Your task to perform on an android device: turn off smart reply in the gmail app Image 0: 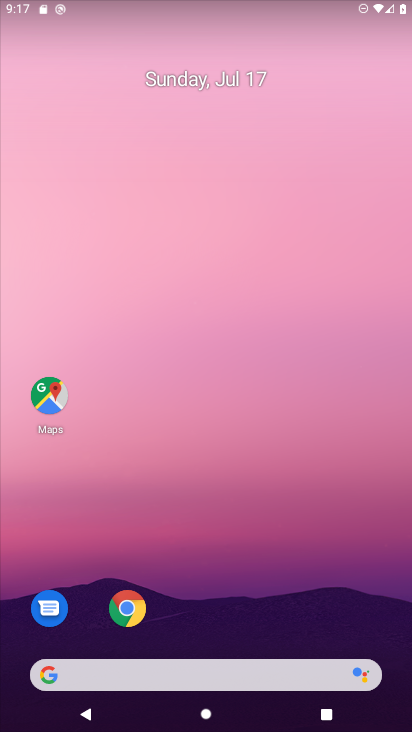
Step 0: drag from (222, 682) to (227, 186)
Your task to perform on an android device: turn off smart reply in the gmail app Image 1: 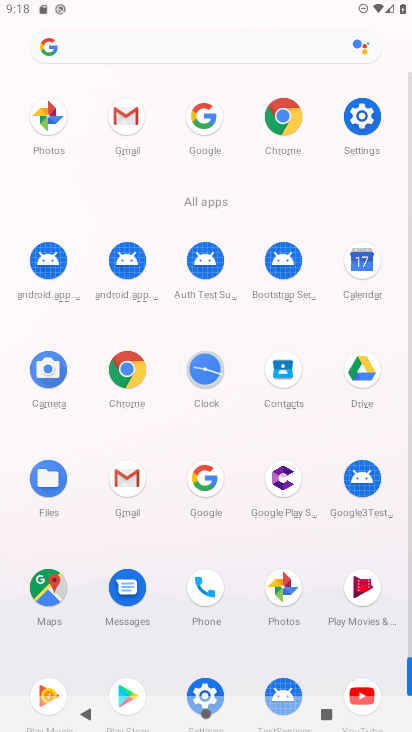
Step 1: click (124, 115)
Your task to perform on an android device: turn off smart reply in the gmail app Image 2: 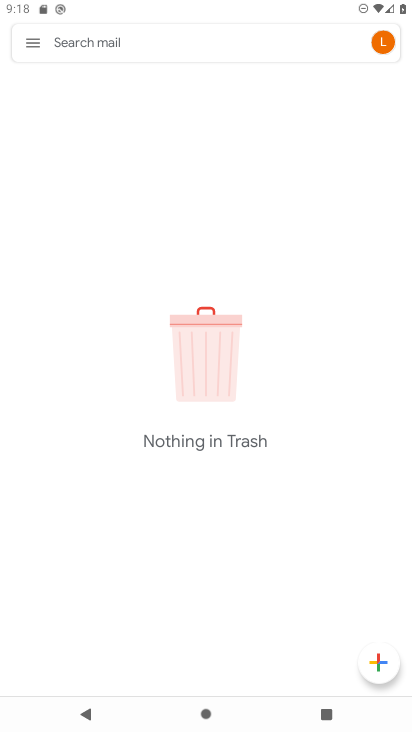
Step 2: click (33, 45)
Your task to perform on an android device: turn off smart reply in the gmail app Image 3: 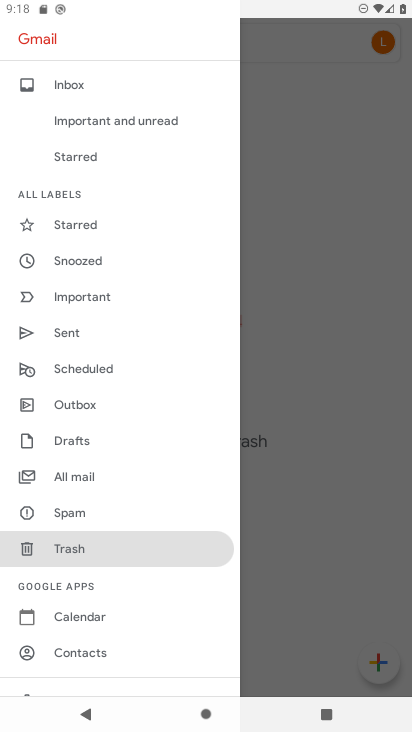
Step 3: drag from (75, 604) to (82, 489)
Your task to perform on an android device: turn off smart reply in the gmail app Image 4: 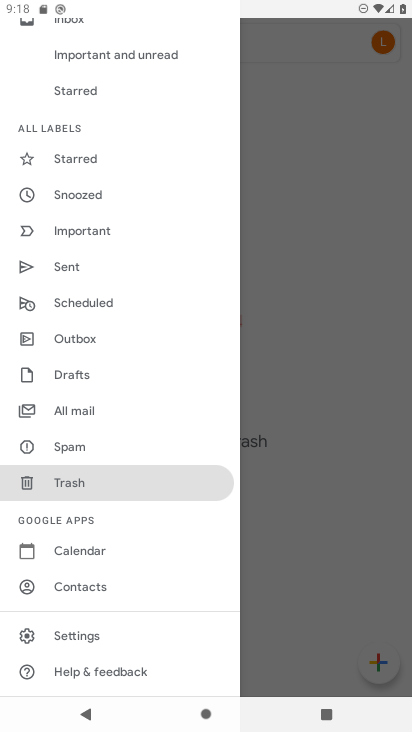
Step 4: click (92, 633)
Your task to perform on an android device: turn off smart reply in the gmail app Image 5: 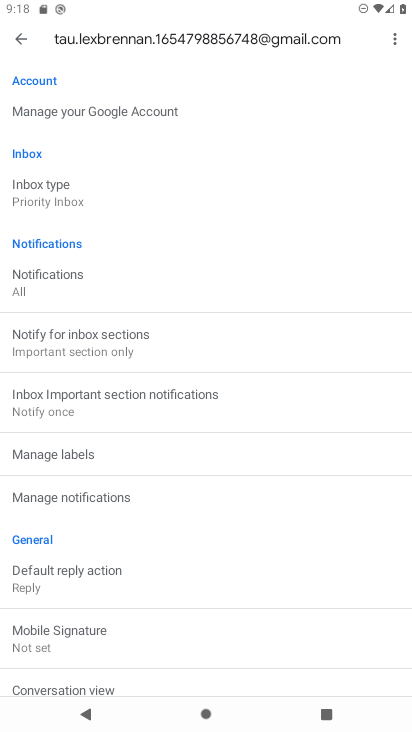
Step 5: drag from (112, 493) to (137, 409)
Your task to perform on an android device: turn off smart reply in the gmail app Image 6: 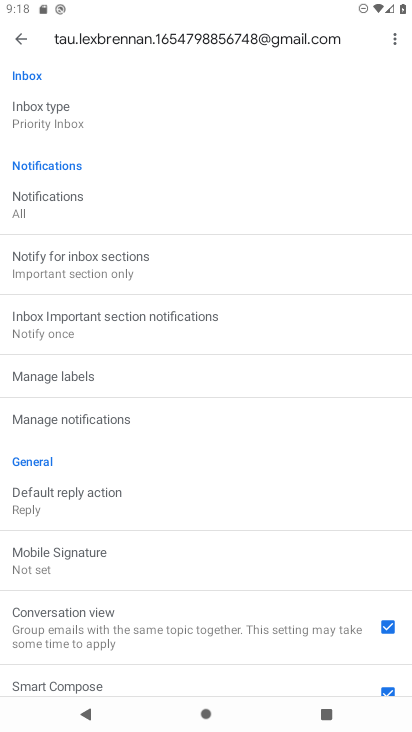
Step 6: drag from (117, 532) to (133, 404)
Your task to perform on an android device: turn off smart reply in the gmail app Image 7: 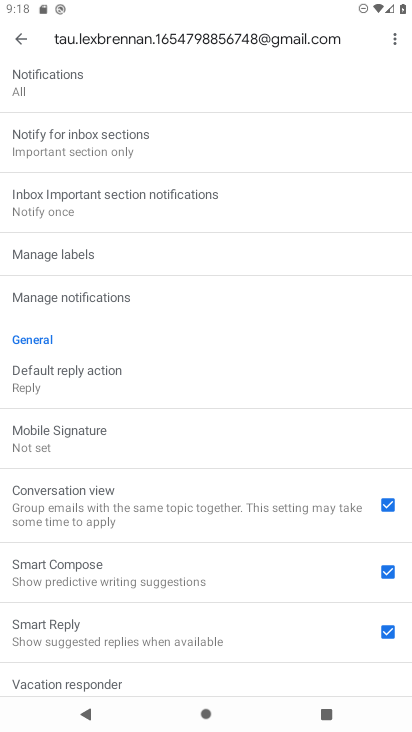
Step 7: drag from (130, 577) to (166, 468)
Your task to perform on an android device: turn off smart reply in the gmail app Image 8: 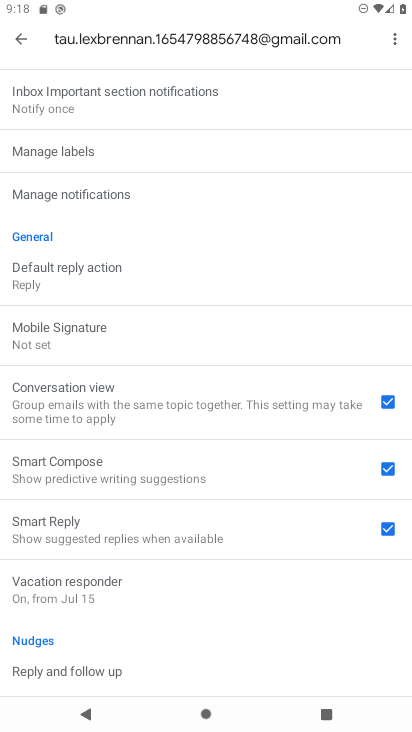
Step 8: click (397, 528)
Your task to perform on an android device: turn off smart reply in the gmail app Image 9: 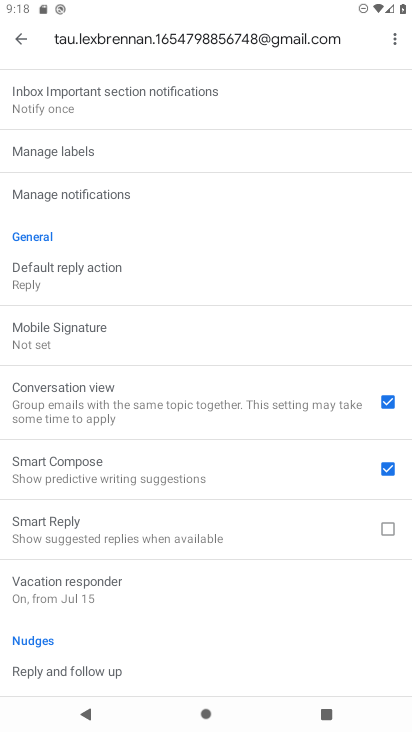
Step 9: task complete